Your task to perform on an android device: change keyboard looks Image 0: 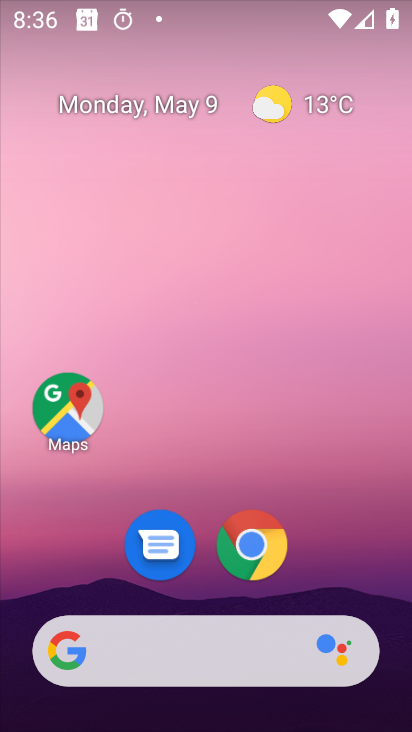
Step 0: drag from (354, 532) to (373, 17)
Your task to perform on an android device: change keyboard looks Image 1: 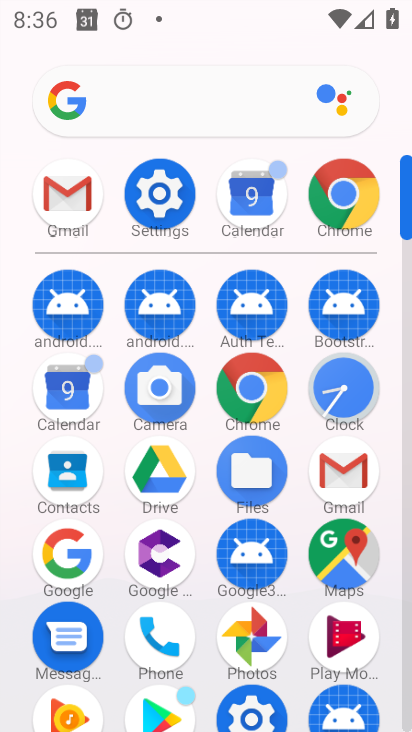
Step 1: click (179, 204)
Your task to perform on an android device: change keyboard looks Image 2: 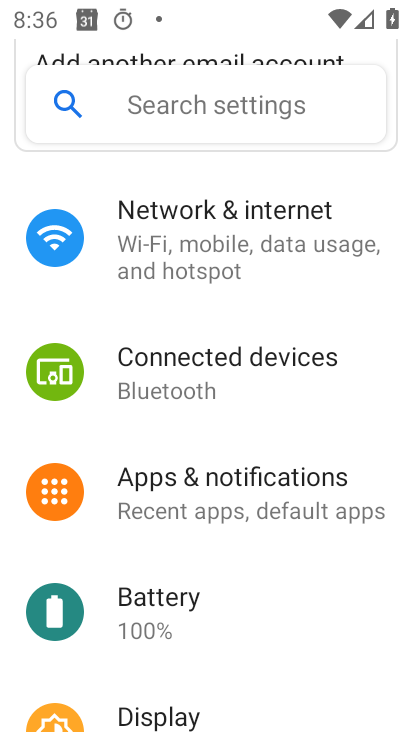
Step 2: drag from (200, 679) to (280, 105)
Your task to perform on an android device: change keyboard looks Image 3: 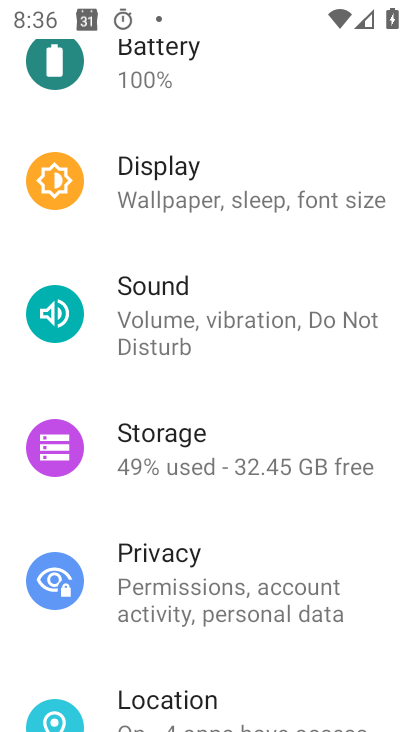
Step 3: drag from (292, 610) to (282, 150)
Your task to perform on an android device: change keyboard looks Image 4: 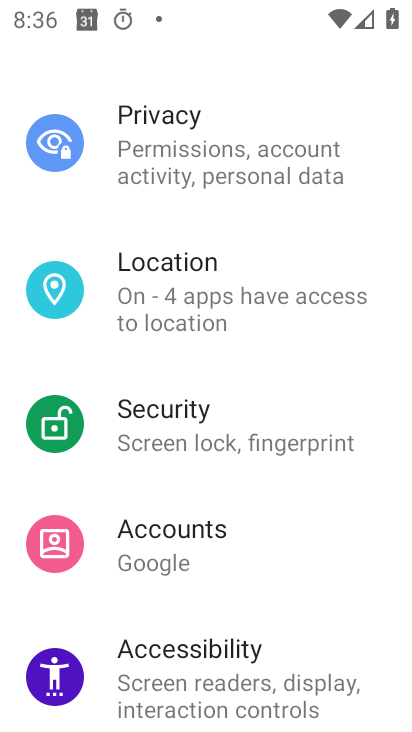
Step 4: drag from (249, 628) to (321, 110)
Your task to perform on an android device: change keyboard looks Image 5: 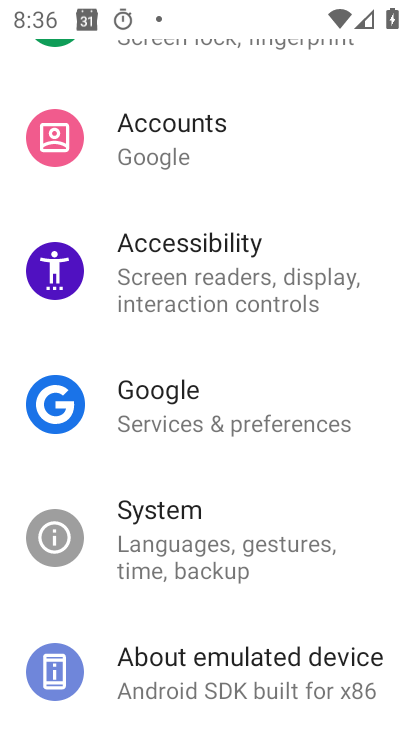
Step 5: drag from (230, 628) to (311, 19)
Your task to perform on an android device: change keyboard looks Image 6: 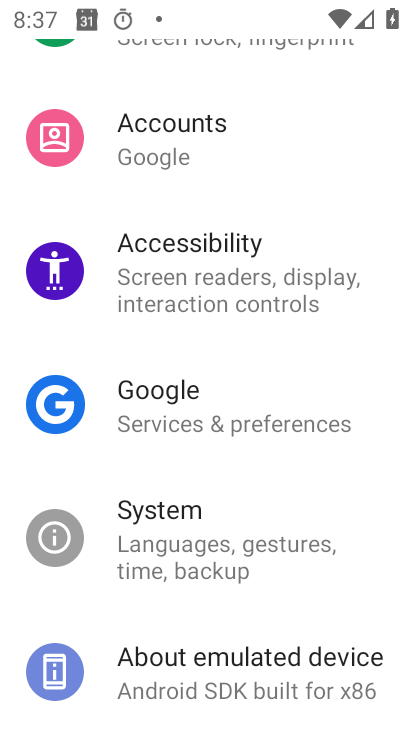
Step 6: drag from (225, 610) to (377, 133)
Your task to perform on an android device: change keyboard looks Image 7: 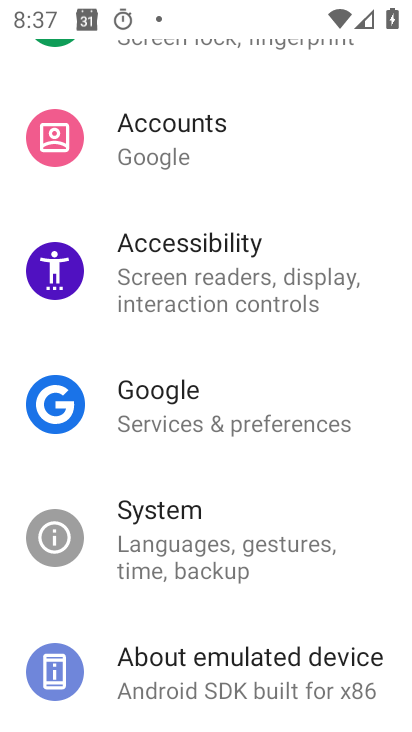
Step 7: click (225, 556)
Your task to perform on an android device: change keyboard looks Image 8: 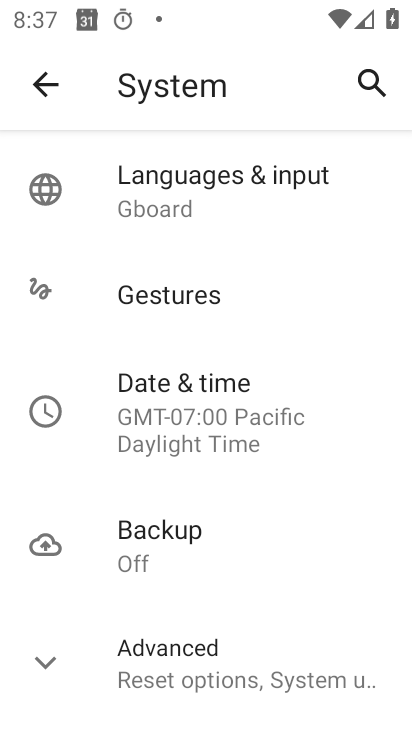
Step 8: click (171, 208)
Your task to perform on an android device: change keyboard looks Image 9: 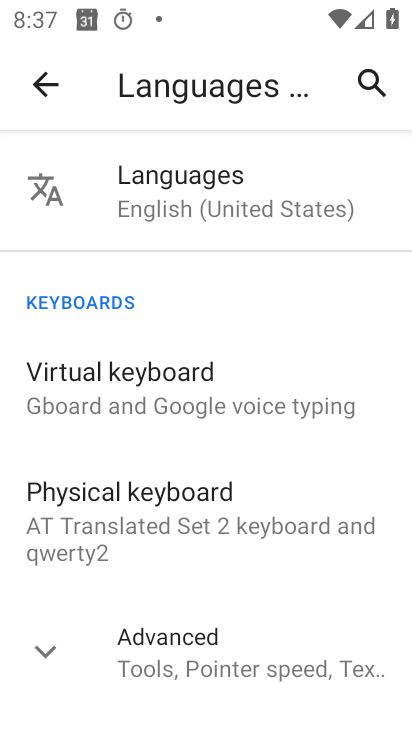
Step 9: drag from (189, 622) to (222, 283)
Your task to perform on an android device: change keyboard looks Image 10: 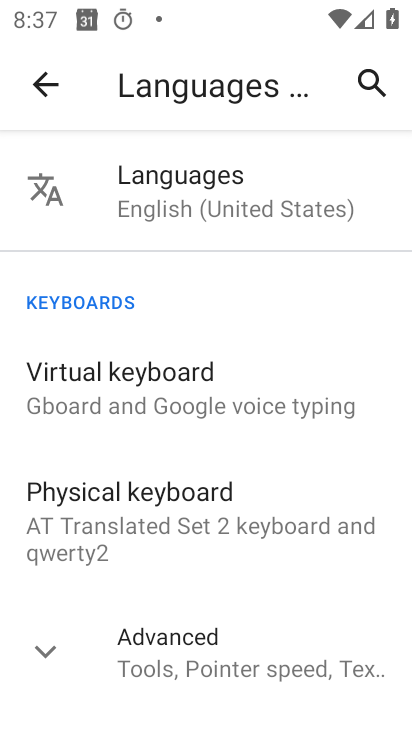
Step 10: click (173, 400)
Your task to perform on an android device: change keyboard looks Image 11: 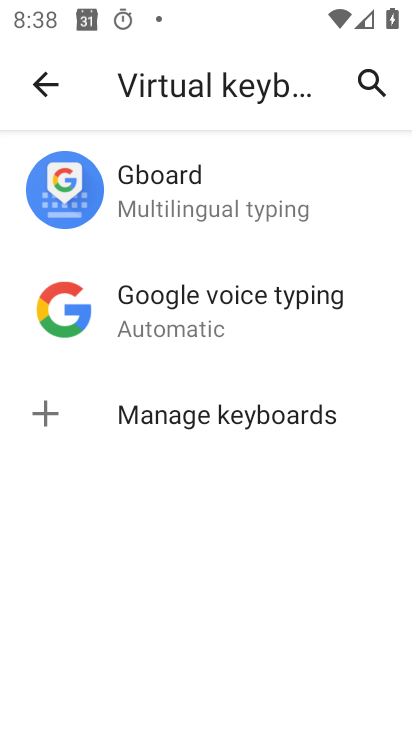
Step 11: click (145, 193)
Your task to perform on an android device: change keyboard looks Image 12: 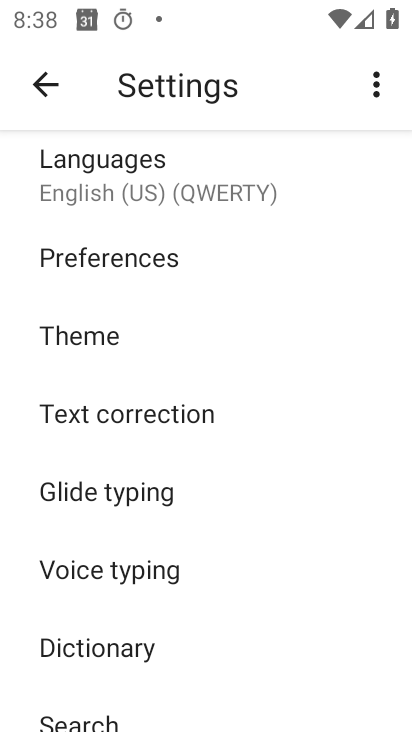
Step 12: click (102, 346)
Your task to perform on an android device: change keyboard looks Image 13: 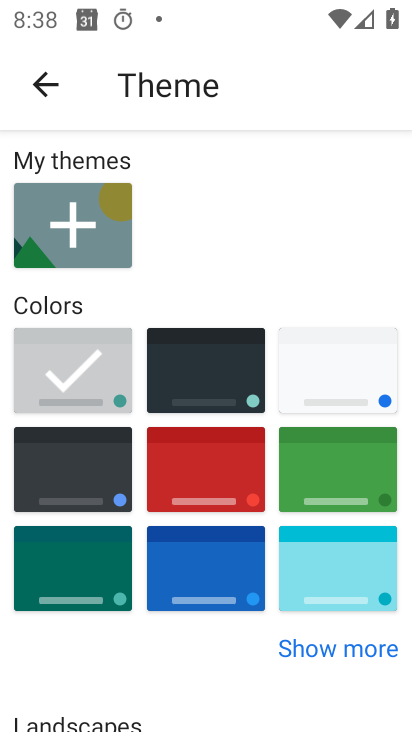
Step 13: click (197, 376)
Your task to perform on an android device: change keyboard looks Image 14: 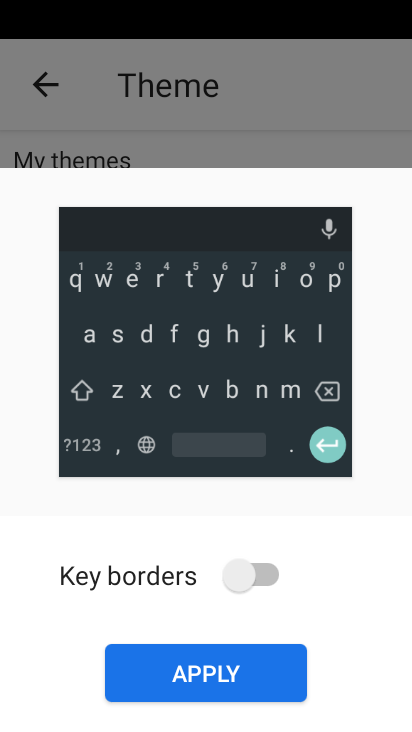
Step 14: click (222, 667)
Your task to perform on an android device: change keyboard looks Image 15: 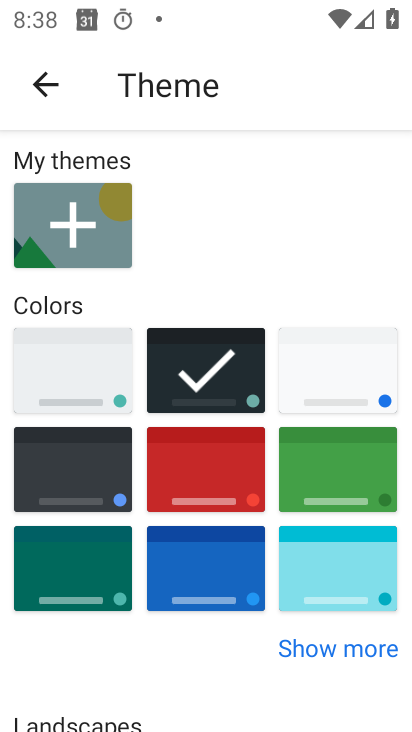
Step 15: task complete